Your task to perform on an android device: Show me recent news Image 0: 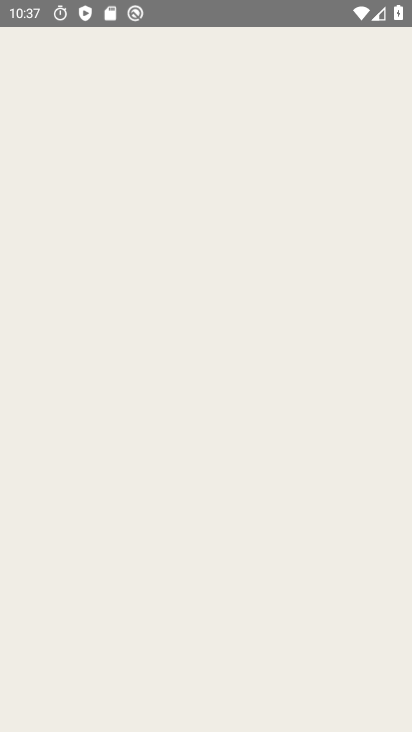
Step 0: drag from (193, 631) to (216, 23)
Your task to perform on an android device: Show me recent news Image 1: 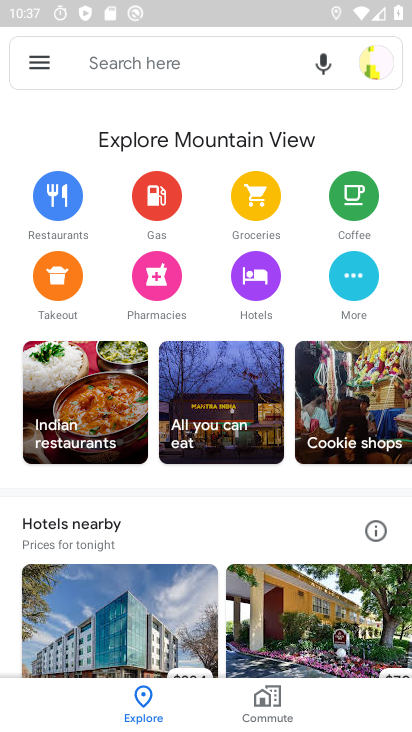
Step 1: press home button
Your task to perform on an android device: Show me recent news Image 2: 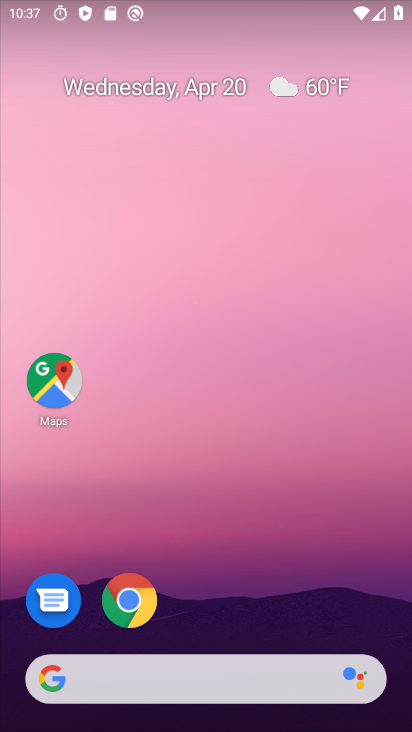
Step 2: click (146, 680)
Your task to perform on an android device: Show me recent news Image 3: 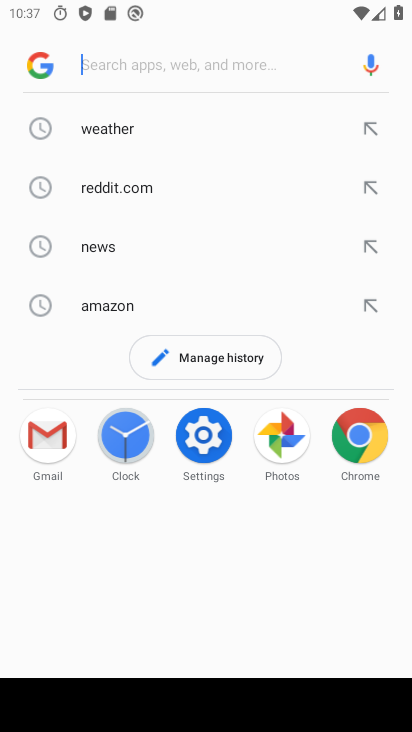
Step 3: click (37, 52)
Your task to perform on an android device: Show me recent news Image 4: 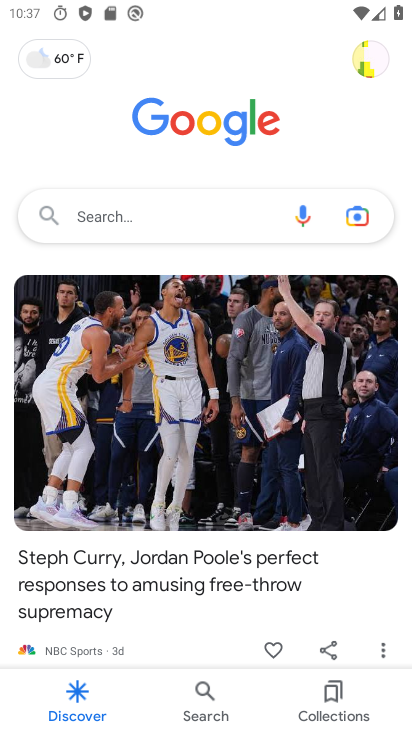
Step 4: task complete